Your task to perform on an android device: Show me productivity apps on the Play Store Image 0: 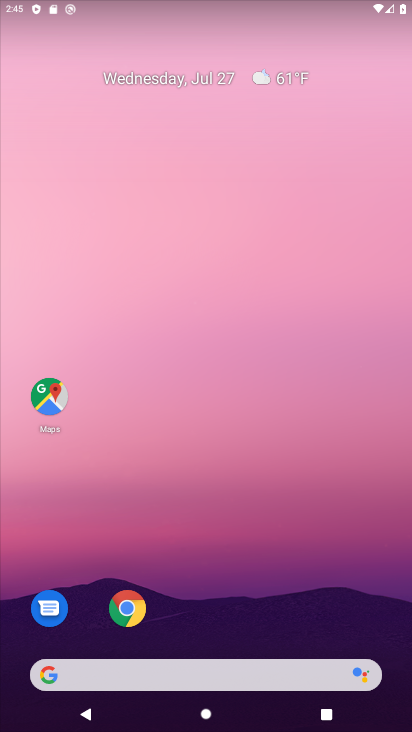
Step 0: drag from (248, 539) to (220, 122)
Your task to perform on an android device: Show me productivity apps on the Play Store Image 1: 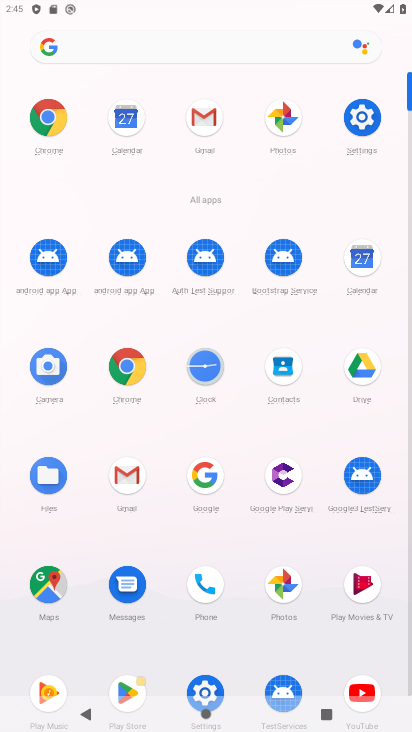
Step 1: click (129, 682)
Your task to perform on an android device: Show me productivity apps on the Play Store Image 2: 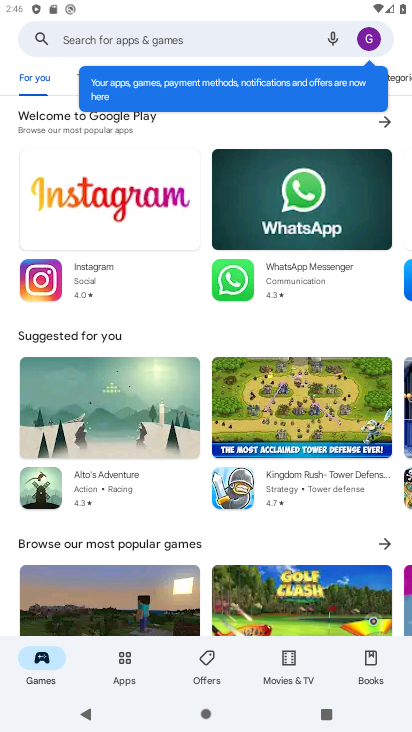
Step 2: click (117, 646)
Your task to perform on an android device: Show me productivity apps on the Play Store Image 3: 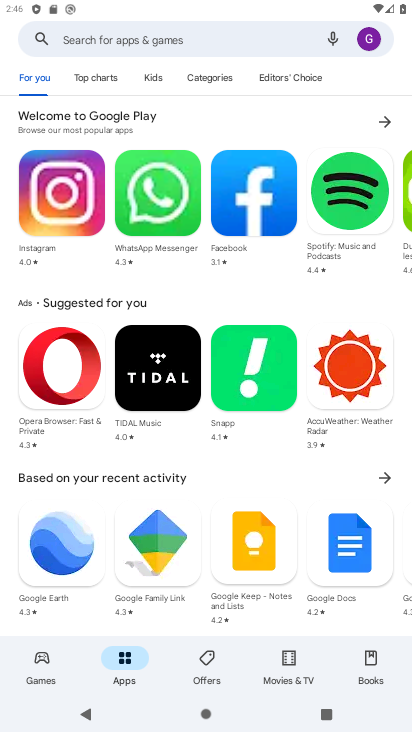
Step 3: click (225, 78)
Your task to perform on an android device: Show me productivity apps on the Play Store Image 4: 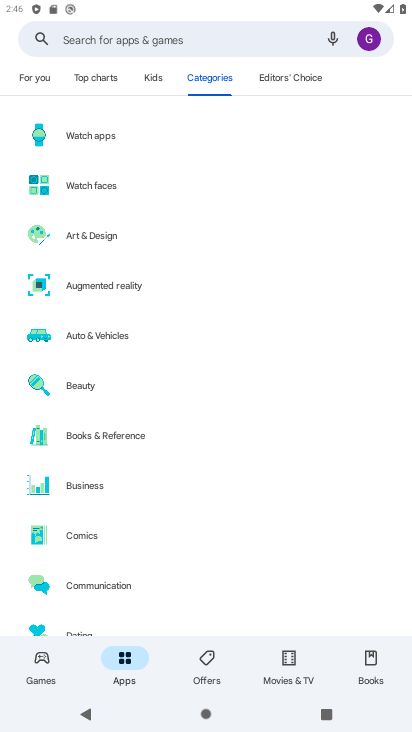
Step 4: drag from (94, 526) to (93, 98)
Your task to perform on an android device: Show me productivity apps on the Play Store Image 5: 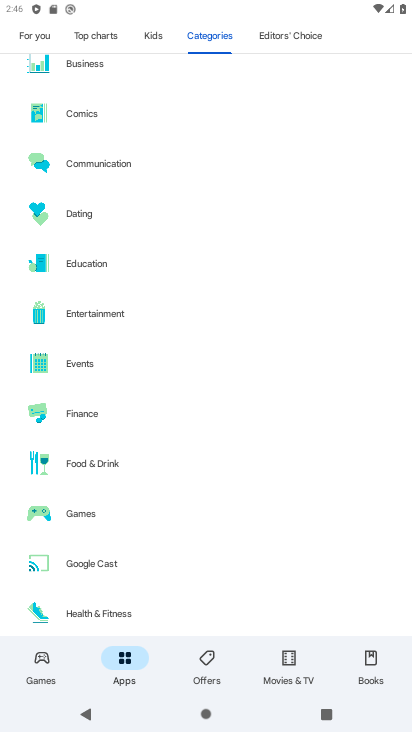
Step 5: drag from (111, 565) to (110, 46)
Your task to perform on an android device: Show me productivity apps on the Play Store Image 6: 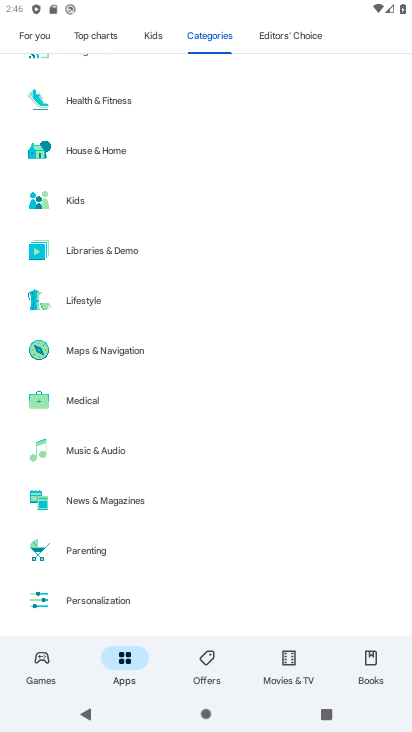
Step 6: drag from (100, 583) to (86, 335)
Your task to perform on an android device: Show me productivity apps on the Play Store Image 7: 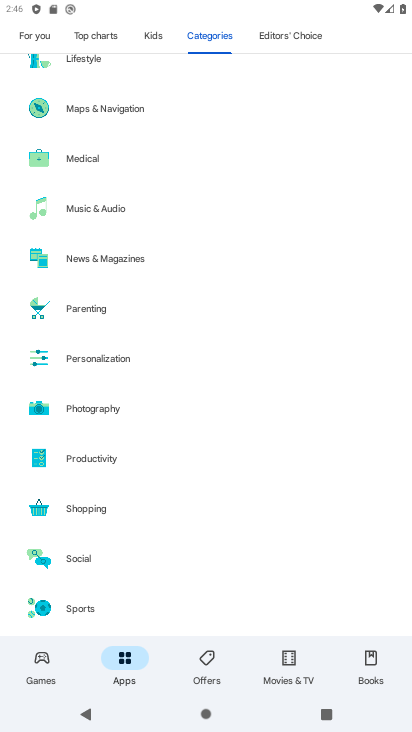
Step 7: click (74, 454)
Your task to perform on an android device: Show me productivity apps on the Play Store Image 8: 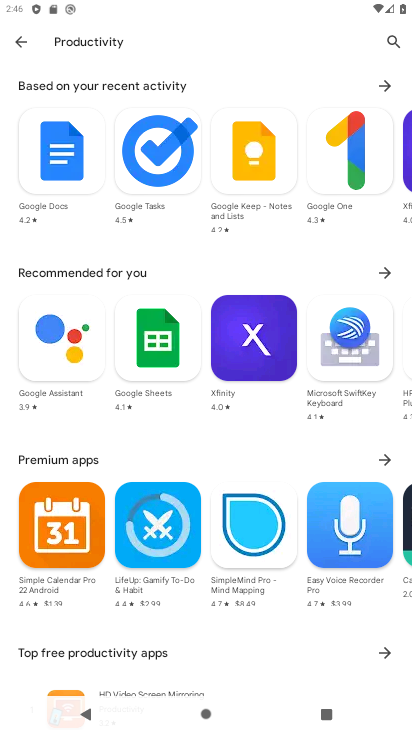
Step 8: task complete